Your task to perform on an android device: turn on location history Image 0: 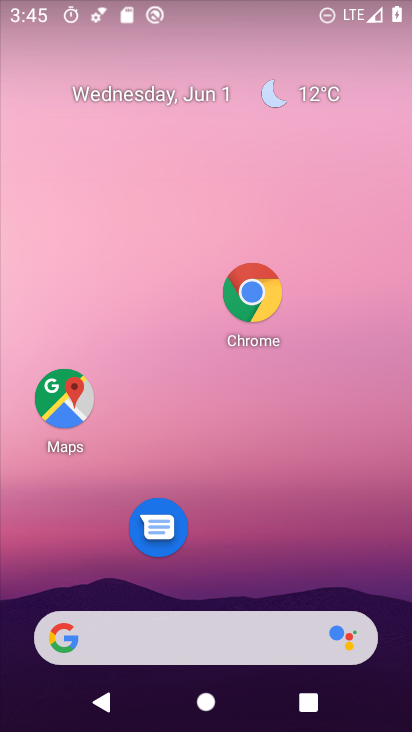
Step 0: drag from (297, 537) to (333, 170)
Your task to perform on an android device: turn on location history Image 1: 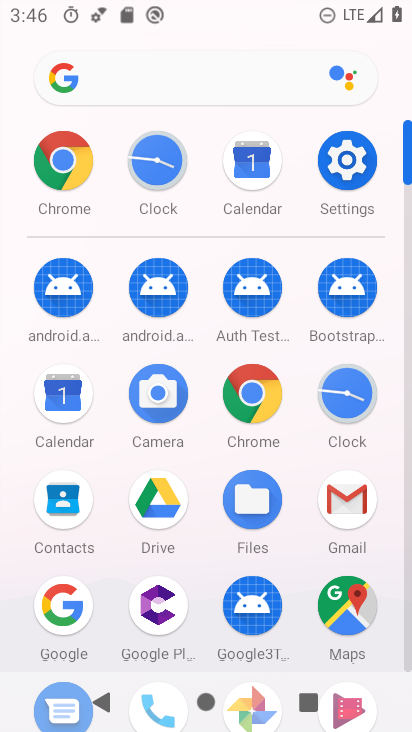
Step 1: click (332, 170)
Your task to perform on an android device: turn on location history Image 2: 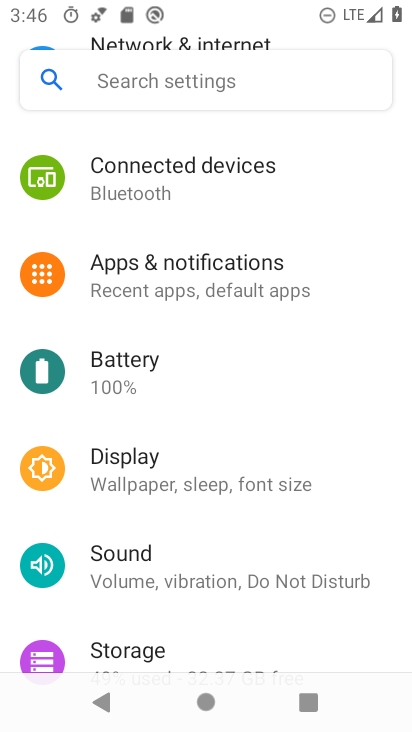
Step 2: drag from (223, 544) to (243, 141)
Your task to perform on an android device: turn on location history Image 3: 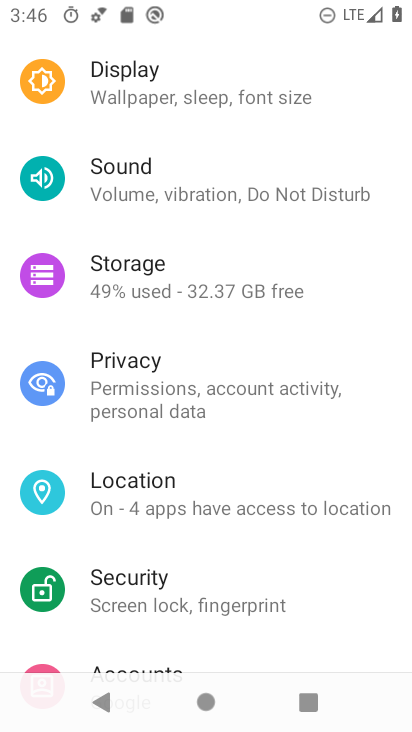
Step 3: click (227, 495)
Your task to perform on an android device: turn on location history Image 4: 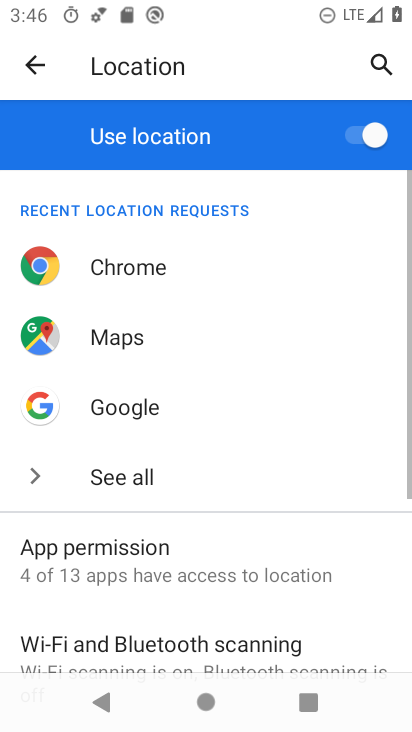
Step 4: drag from (230, 592) to (262, 309)
Your task to perform on an android device: turn on location history Image 5: 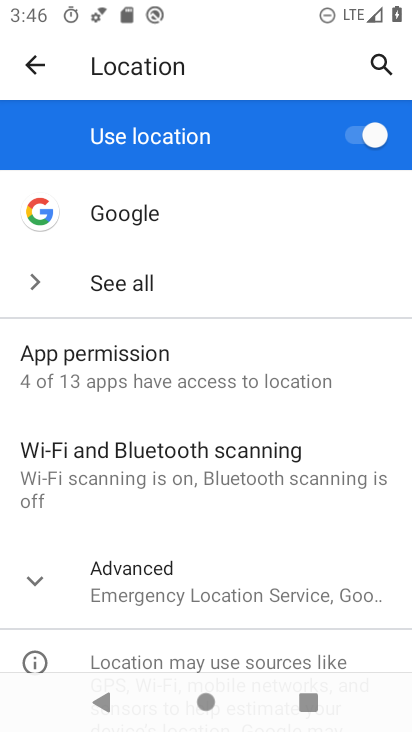
Step 5: click (234, 576)
Your task to perform on an android device: turn on location history Image 6: 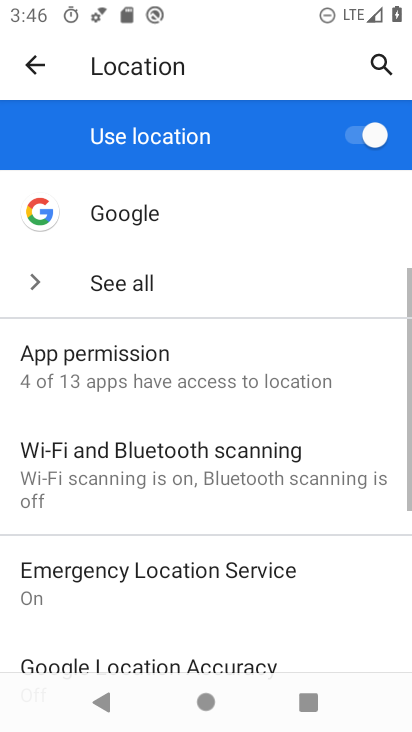
Step 6: drag from (234, 576) to (254, 340)
Your task to perform on an android device: turn on location history Image 7: 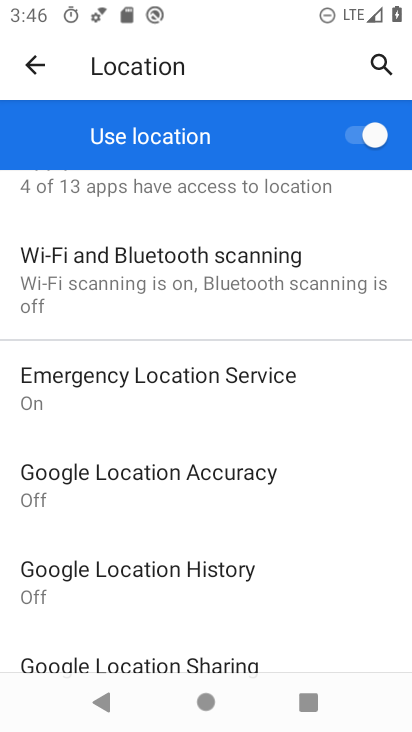
Step 7: click (235, 581)
Your task to perform on an android device: turn on location history Image 8: 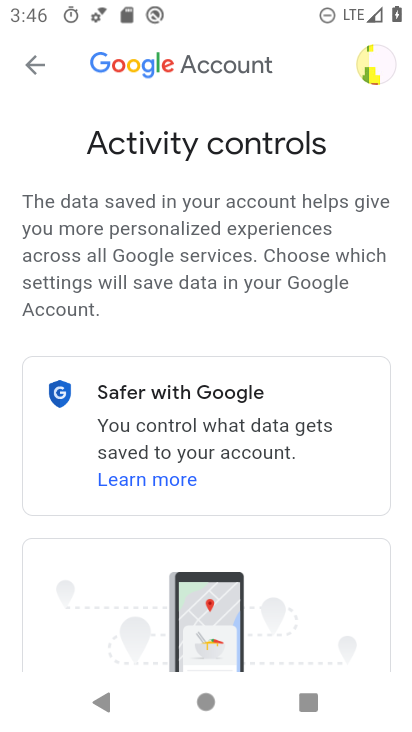
Step 8: task complete